Your task to perform on an android device: Go to Google maps Image 0: 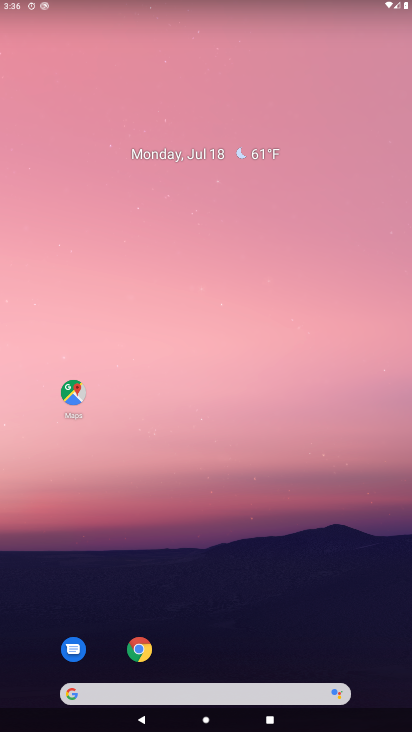
Step 0: click (75, 397)
Your task to perform on an android device: Go to Google maps Image 1: 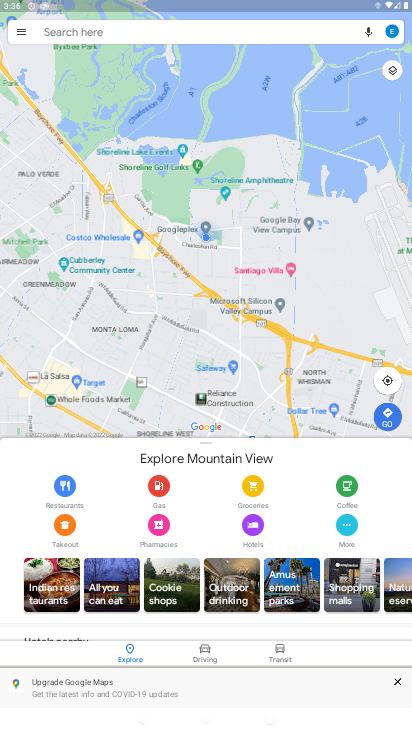
Step 1: task complete